Your task to perform on an android device: show emergency info Image 0: 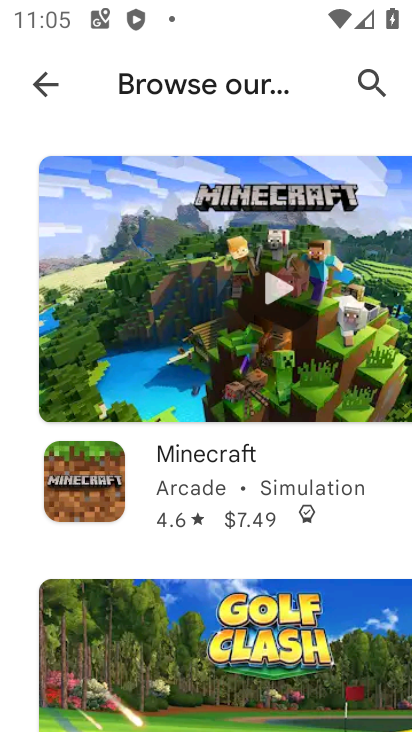
Step 0: press home button
Your task to perform on an android device: show emergency info Image 1: 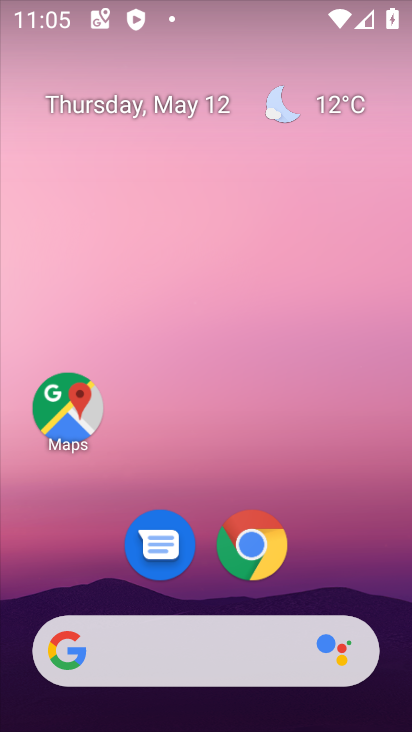
Step 1: drag from (213, 589) to (213, 131)
Your task to perform on an android device: show emergency info Image 2: 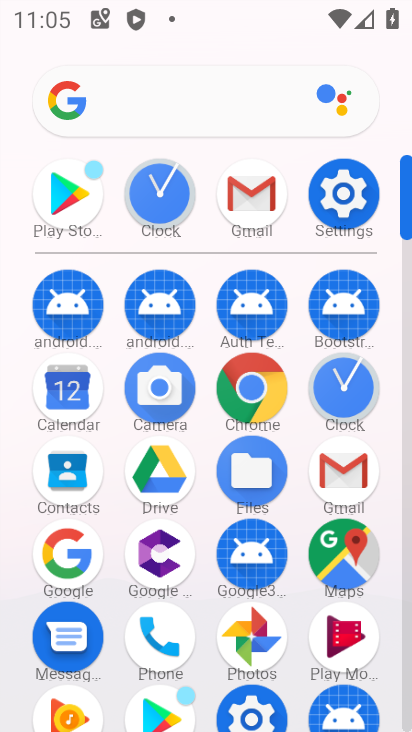
Step 2: click (342, 189)
Your task to perform on an android device: show emergency info Image 3: 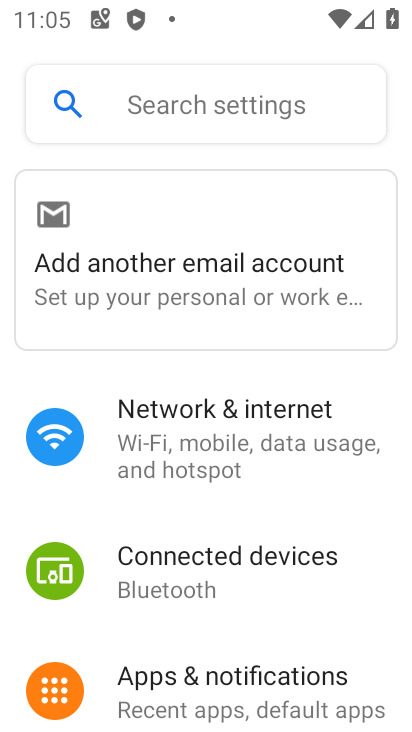
Step 3: drag from (211, 672) to (237, 116)
Your task to perform on an android device: show emergency info Image 4: 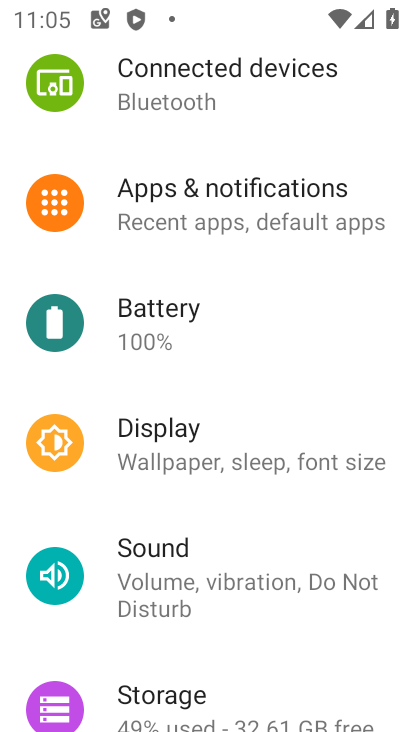
Step 4: drag from (243, 664) to (270, 16)
Your task to perform on an android device: show emergency info Image 5: 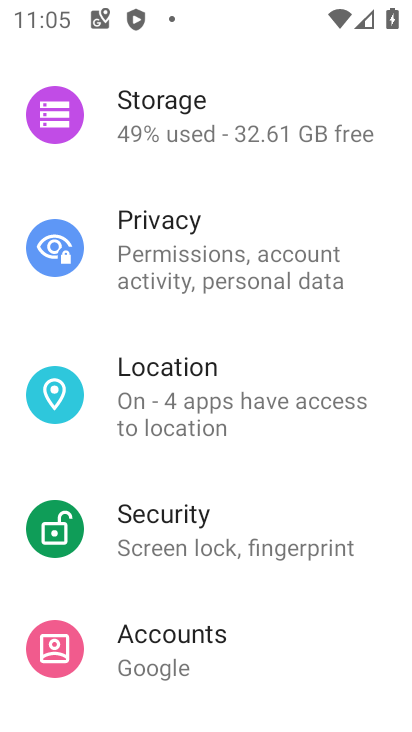
Step 5: drag from (222, 658) to (234, 80)
Your task to perform on an android device: show emergency info Image 6: 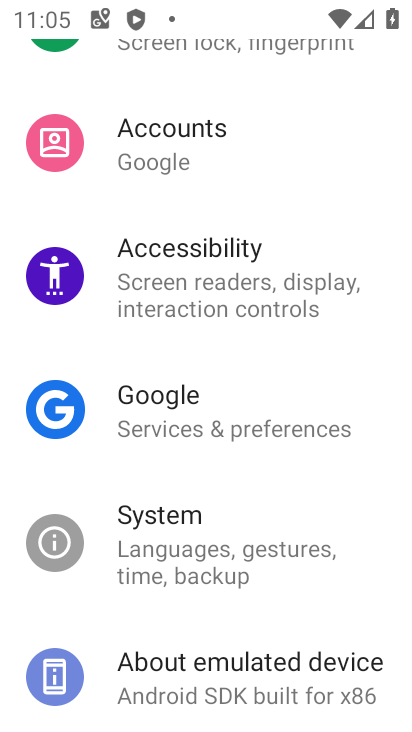
Step 6: click (201, 681)
Your task to perform on an android device: show emergency info Image 7: 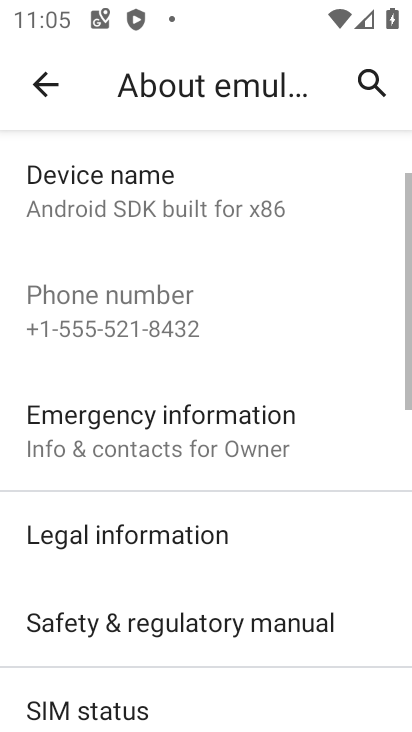
Step 7: click (298, 426)
Your task to perform on an android device: show emergency info Image 8: 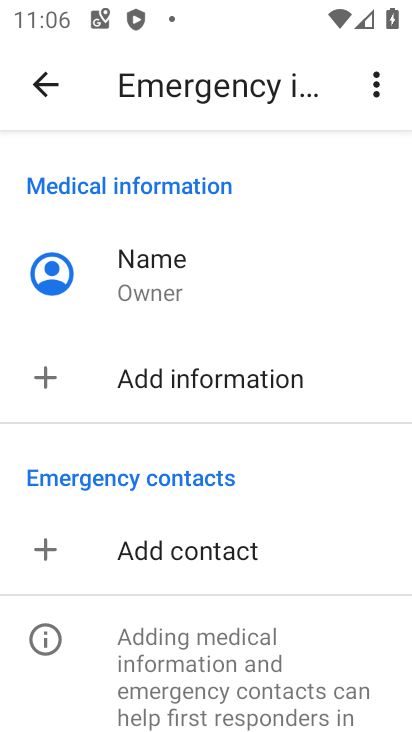
Step 8: task complete